Your task to perform on an android device: change notifications settings Image 0: 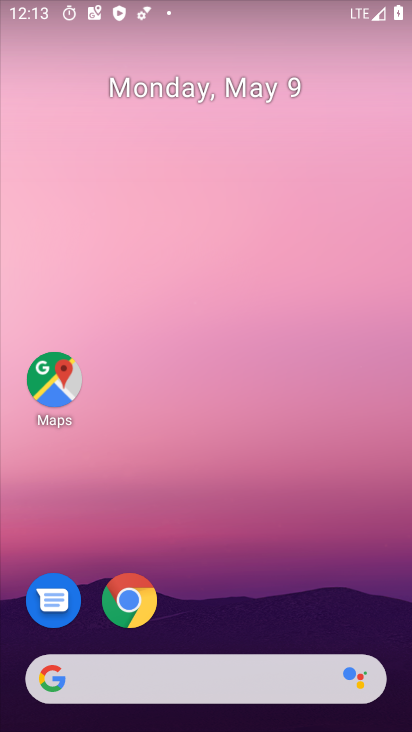
Step 0: drag from (228, 594) to (221, 206)
Your task to perform on an android device: change notifications settings Image 1: 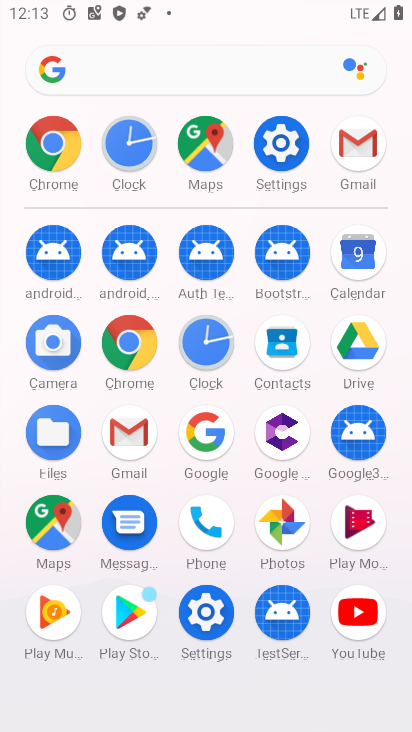
Step 1: click (289, 160)
Your task to perform on an android device: change notifications settings Image 2: 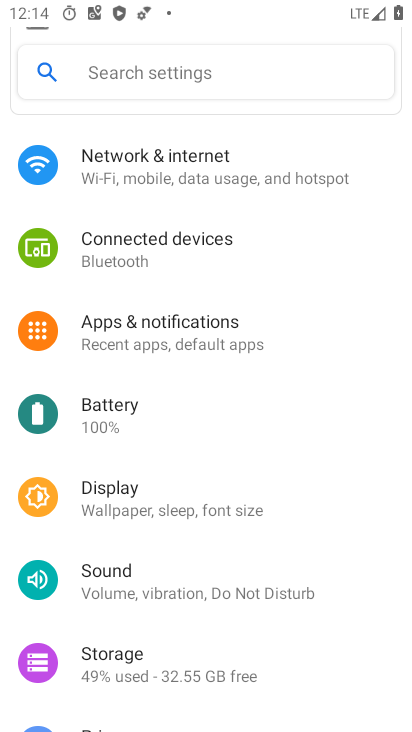
Step 2: click (223, 336)
Your task to perform on an android device: change notifications settings Image 3: 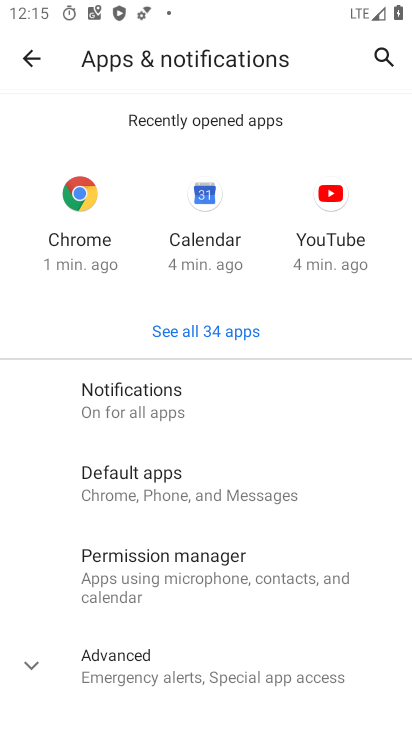
Step 3: click (152, 419)
Your task to perform on an android device: change notifications settings Image 4: 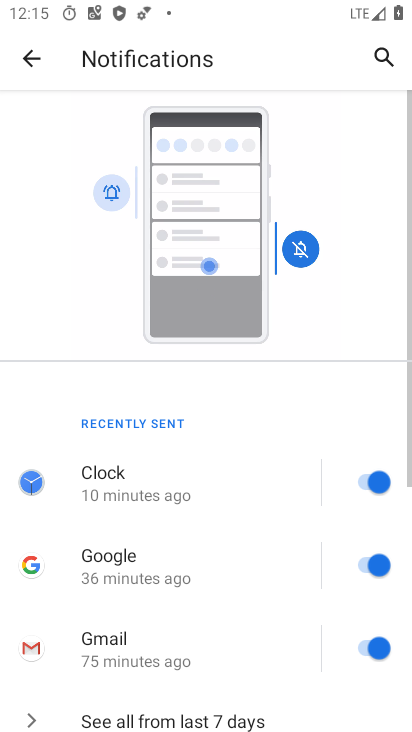
Step 4: drag from (172, 617) to (169, 230)
Your task to perform on an android device: change notifications settings Image 5: 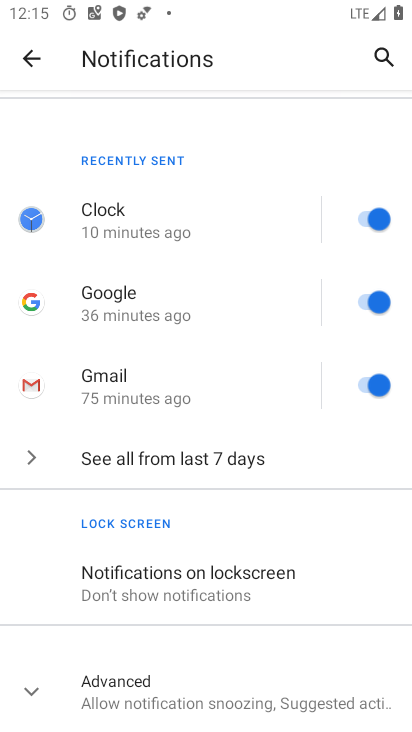
Step 5: click (367, 387)
Your task to perform on an android device: change notifications settings Image 6: 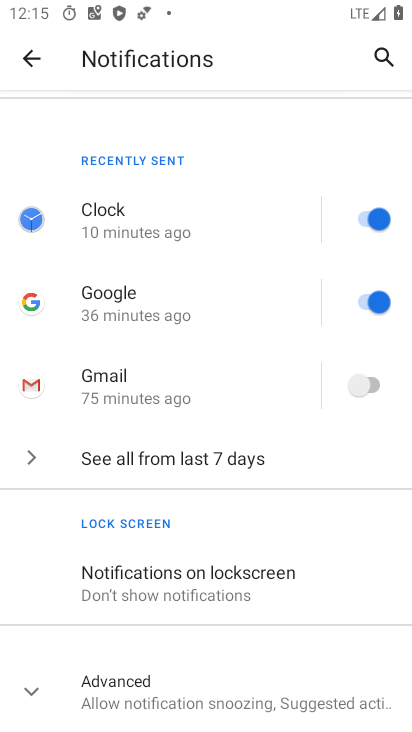
Step 6: task complete